Your task to perform on an android device: turn on data saver in the chrome app Image 0: 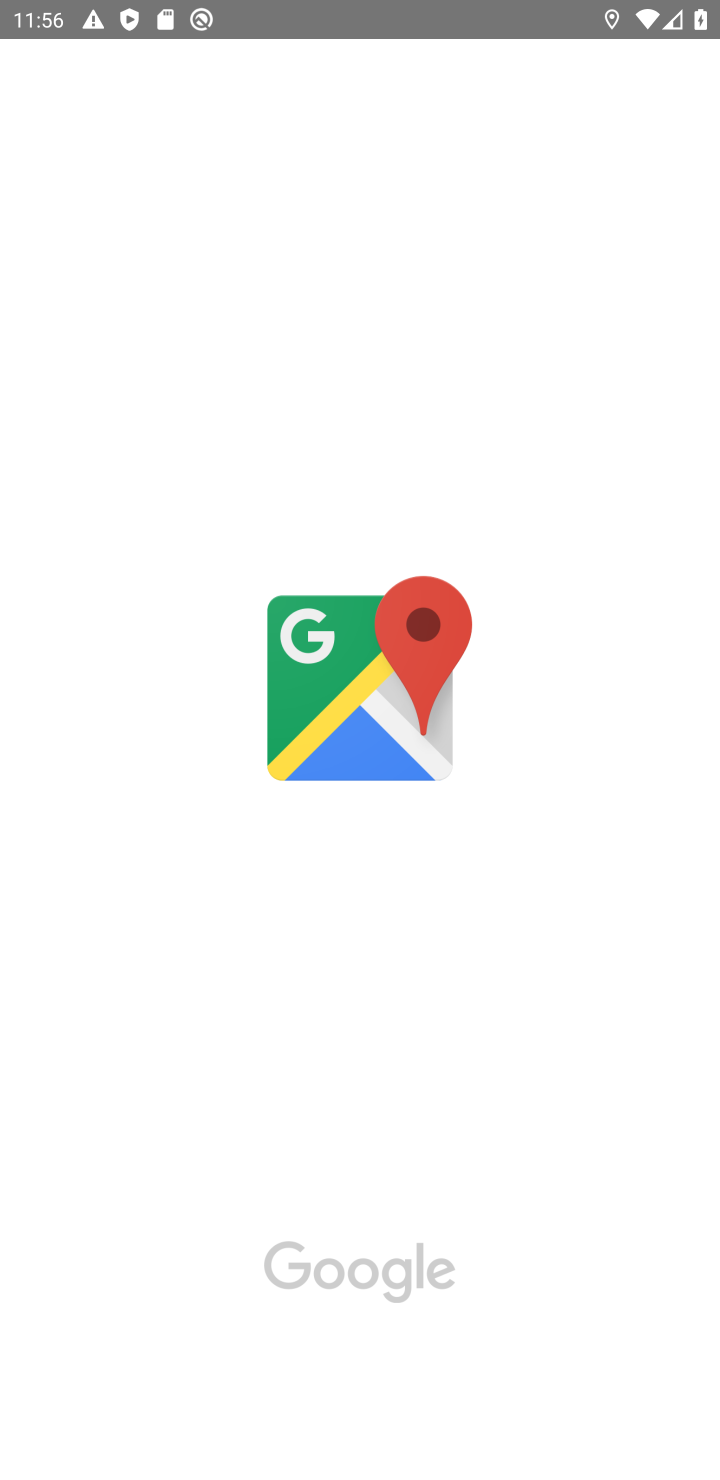
Step 0: press home button
Your task to perform on an android device: turn on data saver in the chrome app Image 1: 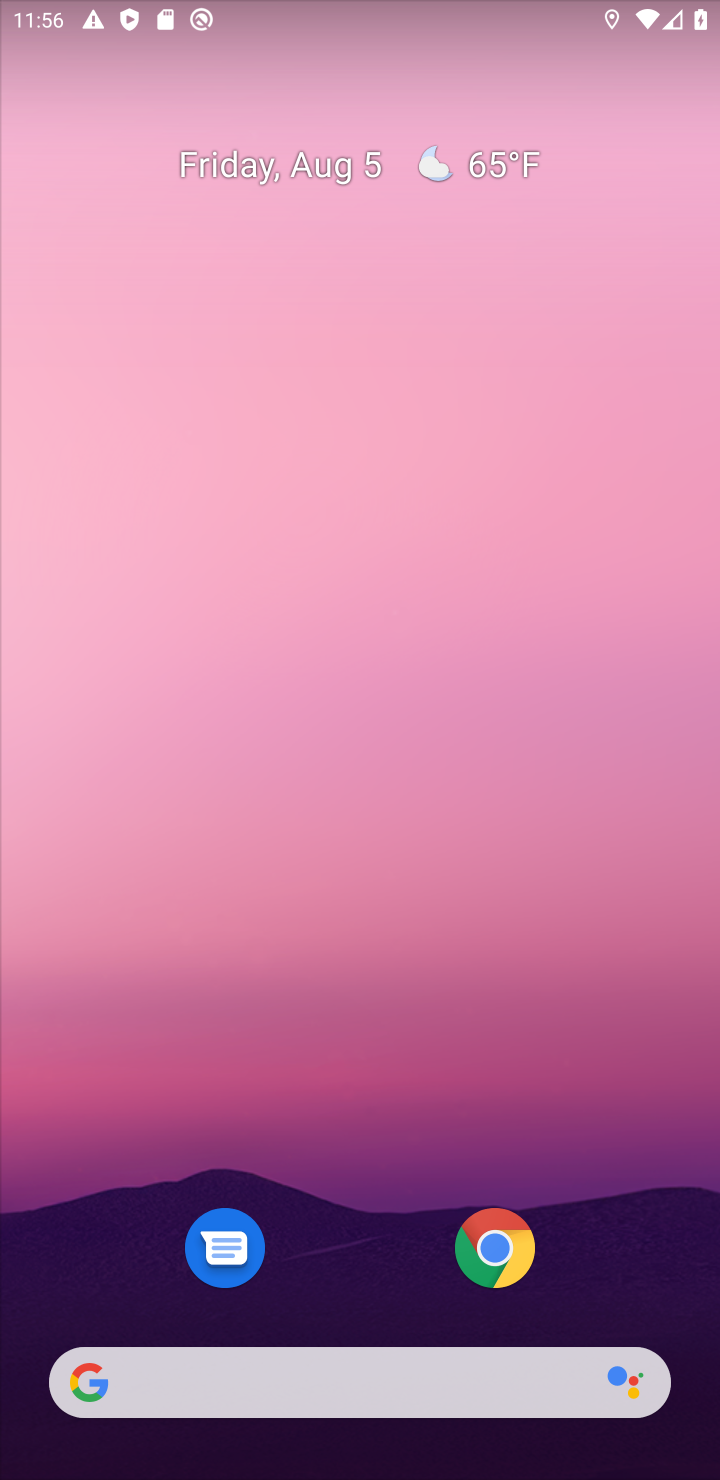
Step 1: drag from (361, 1309) to (396, 150)
Your task to perform on an android device: turn on data saver in the chrome app Image 2: 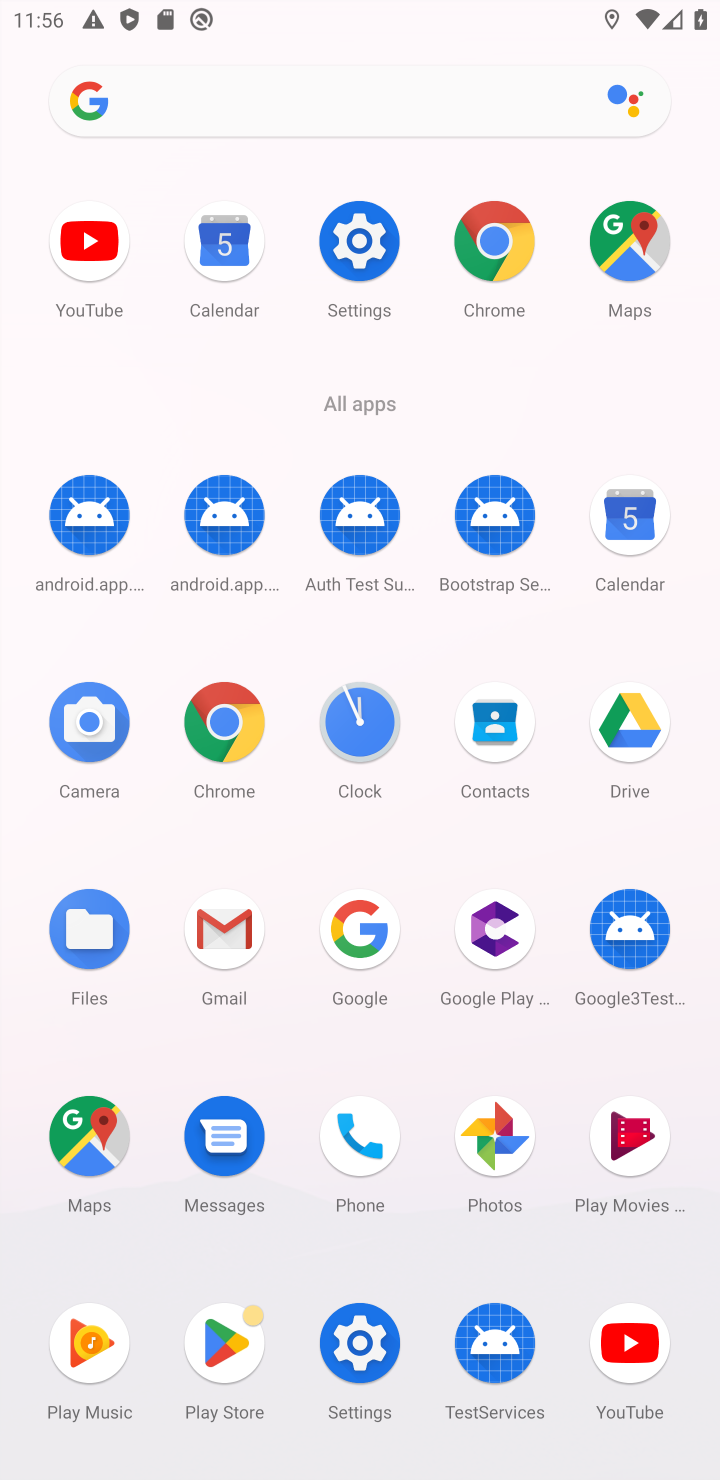
Step 2: click (490, 223)
Your task to perform on an android device: turn on data saver in the chrome app Image 3: 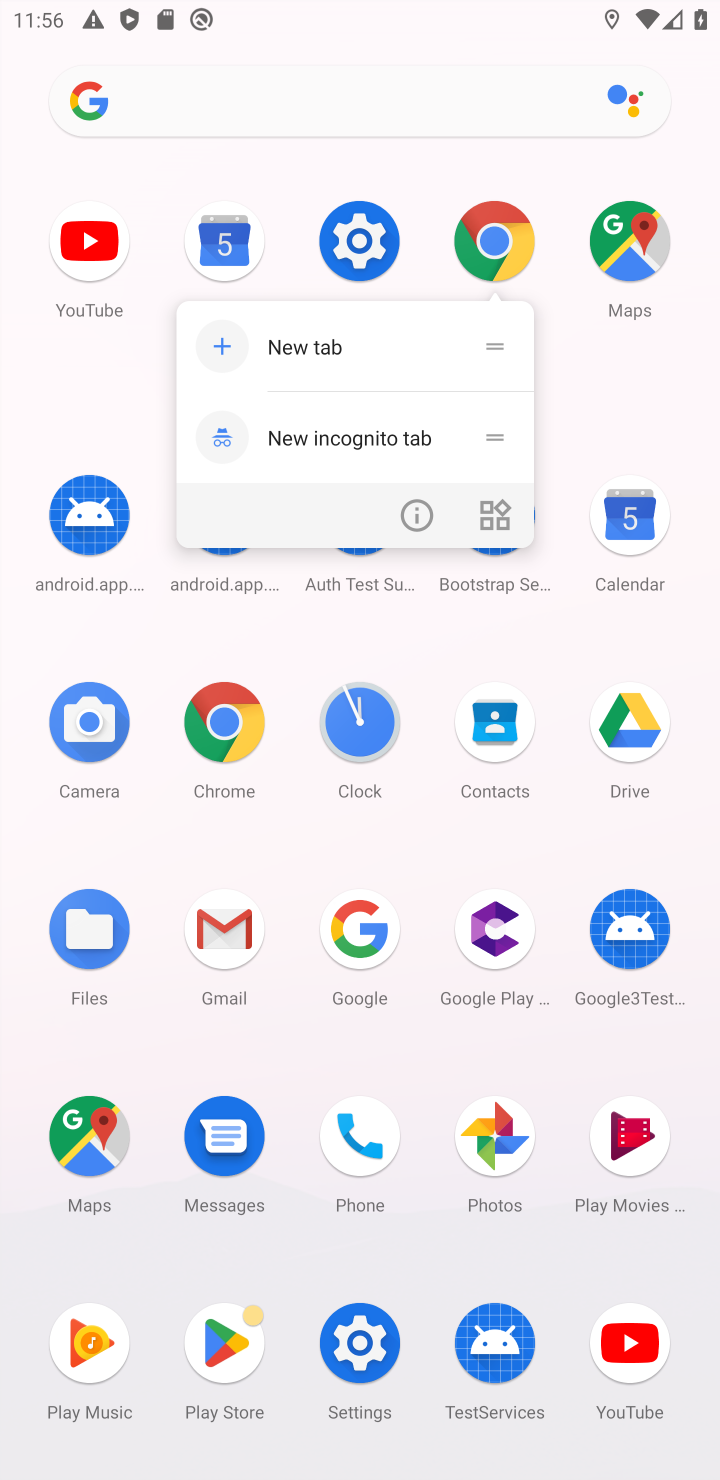
Step 3: click (495, 238)
Your task to perform on an android device: turn on data saver in the chrome app Image 4: 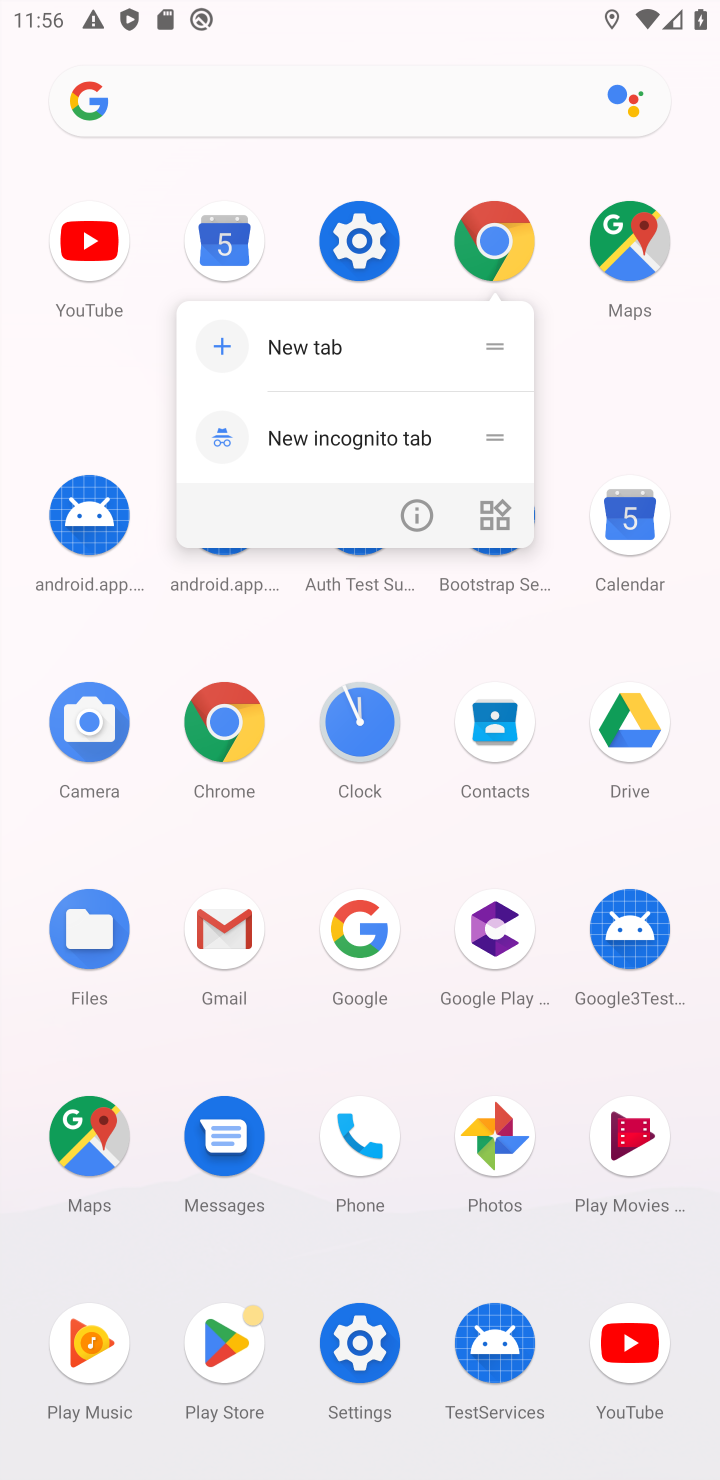
Step 4: click (496, 233)
Your task to perform on an android device: turn on data saver in the chrome app Image 5: 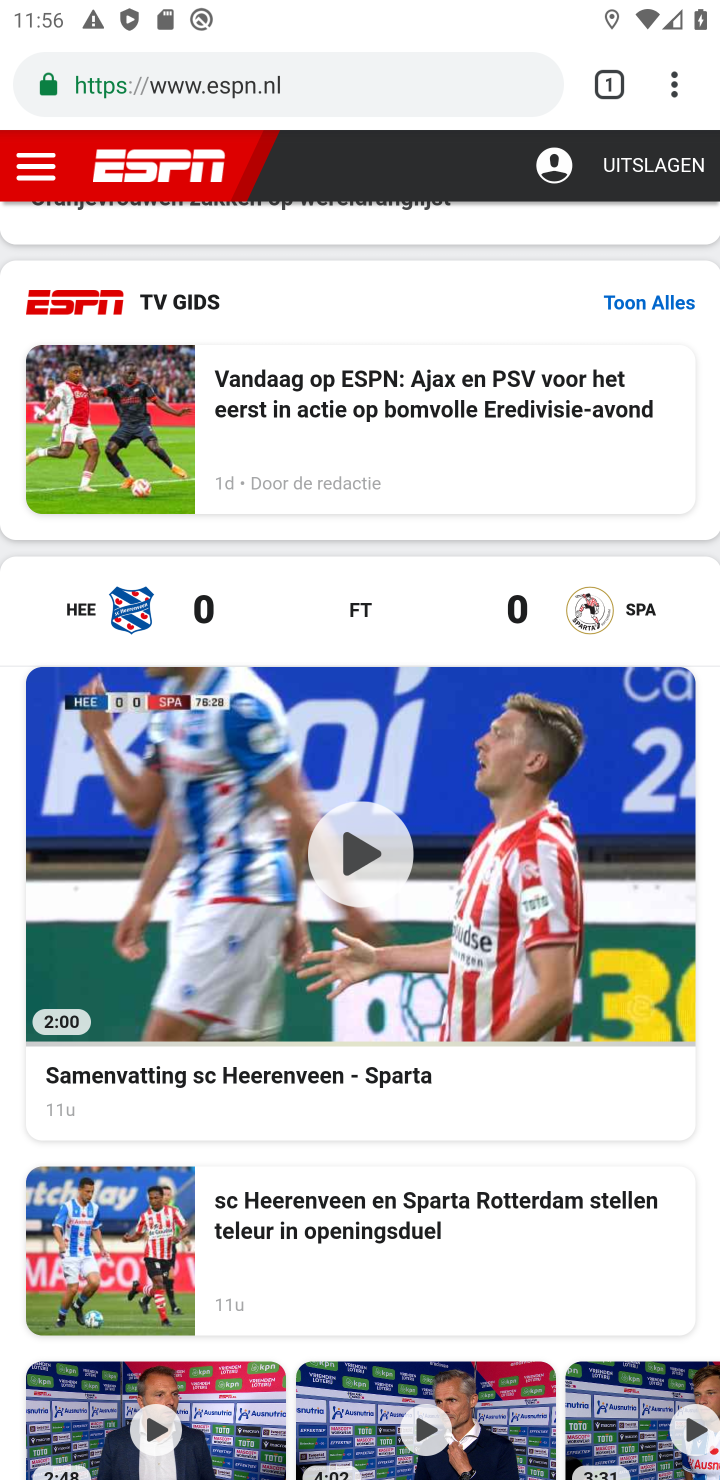
Step 5: click (676, 79)
Your task to perform on an android device: turn on data saver in the chrome app Image 6: 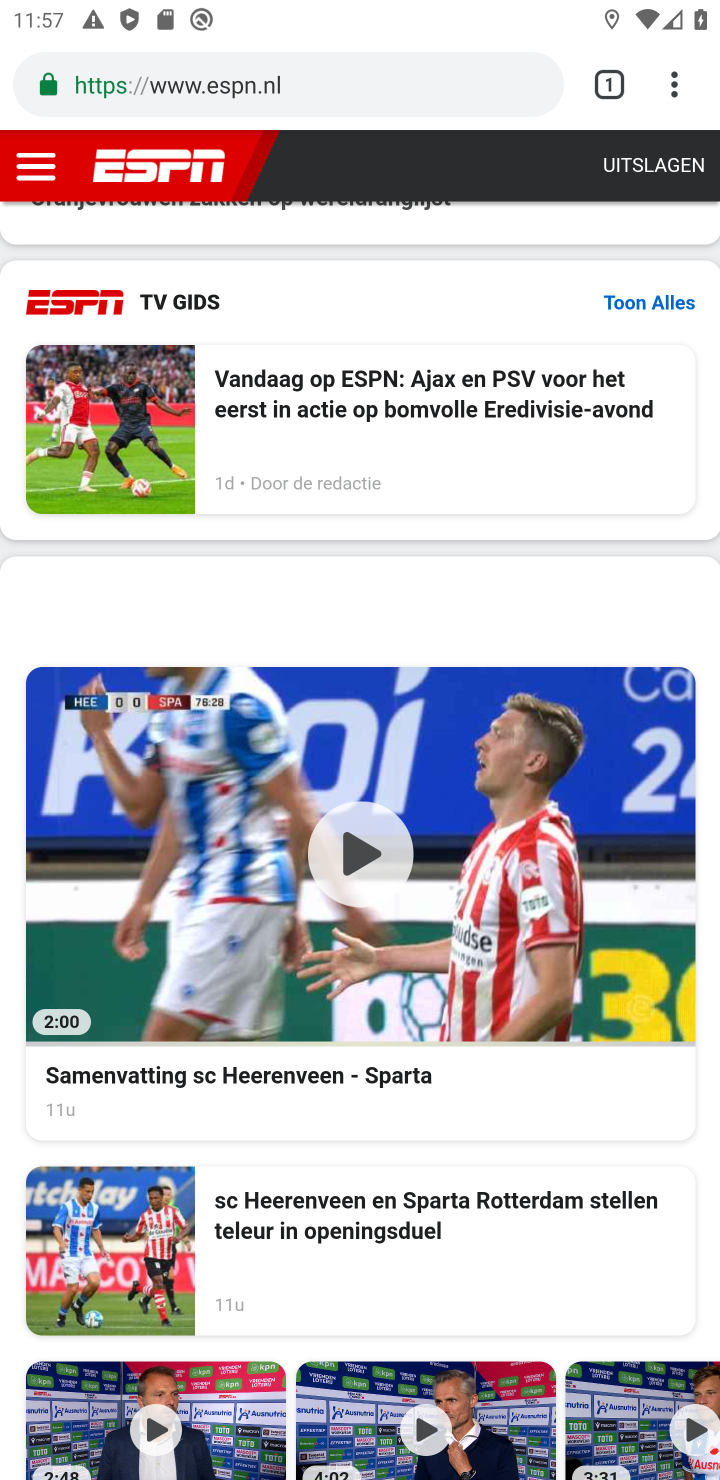
Step 6: click (676, 76)
Your task to perform on an android device: turn on data saver in the chrome app Image 7: 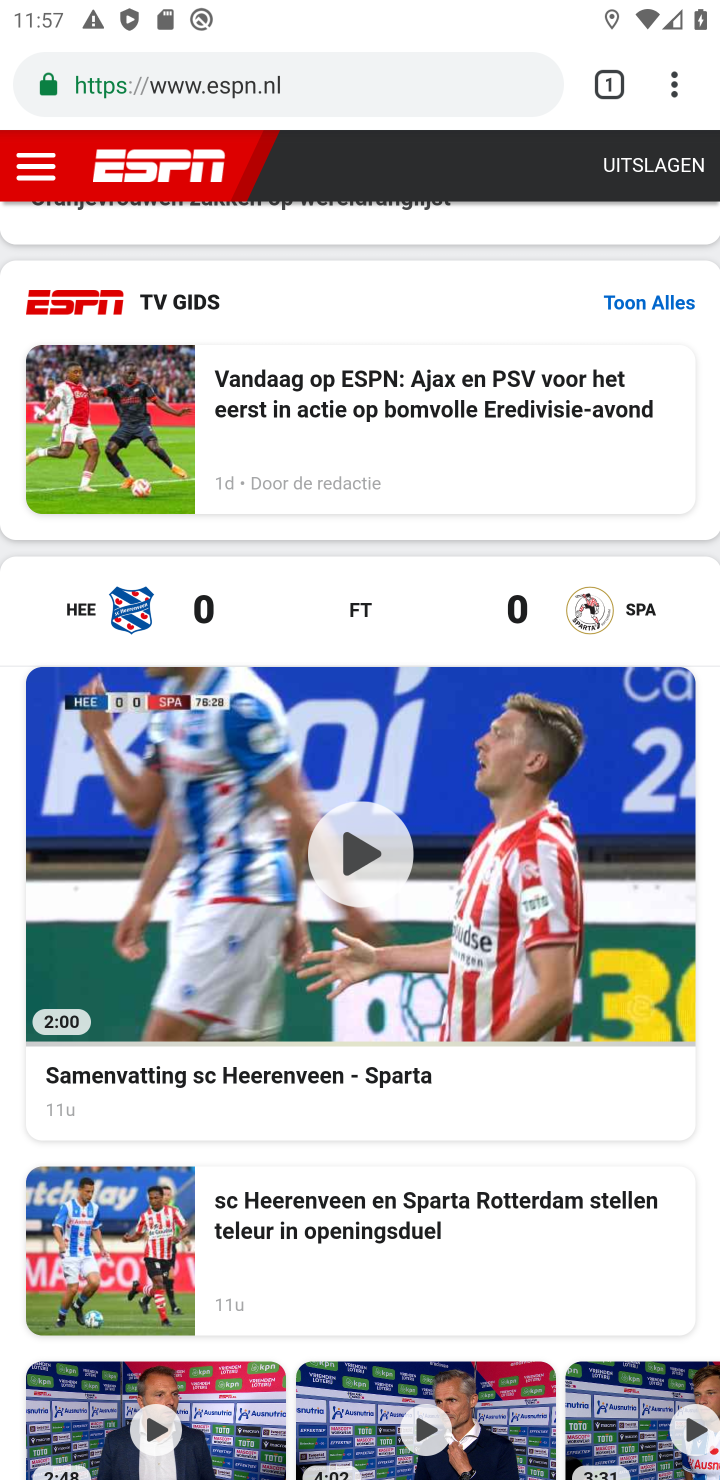
Step 7: click (678, 75)
Your task to perform on an android device: turn on data saver in the chrome app Image 8: 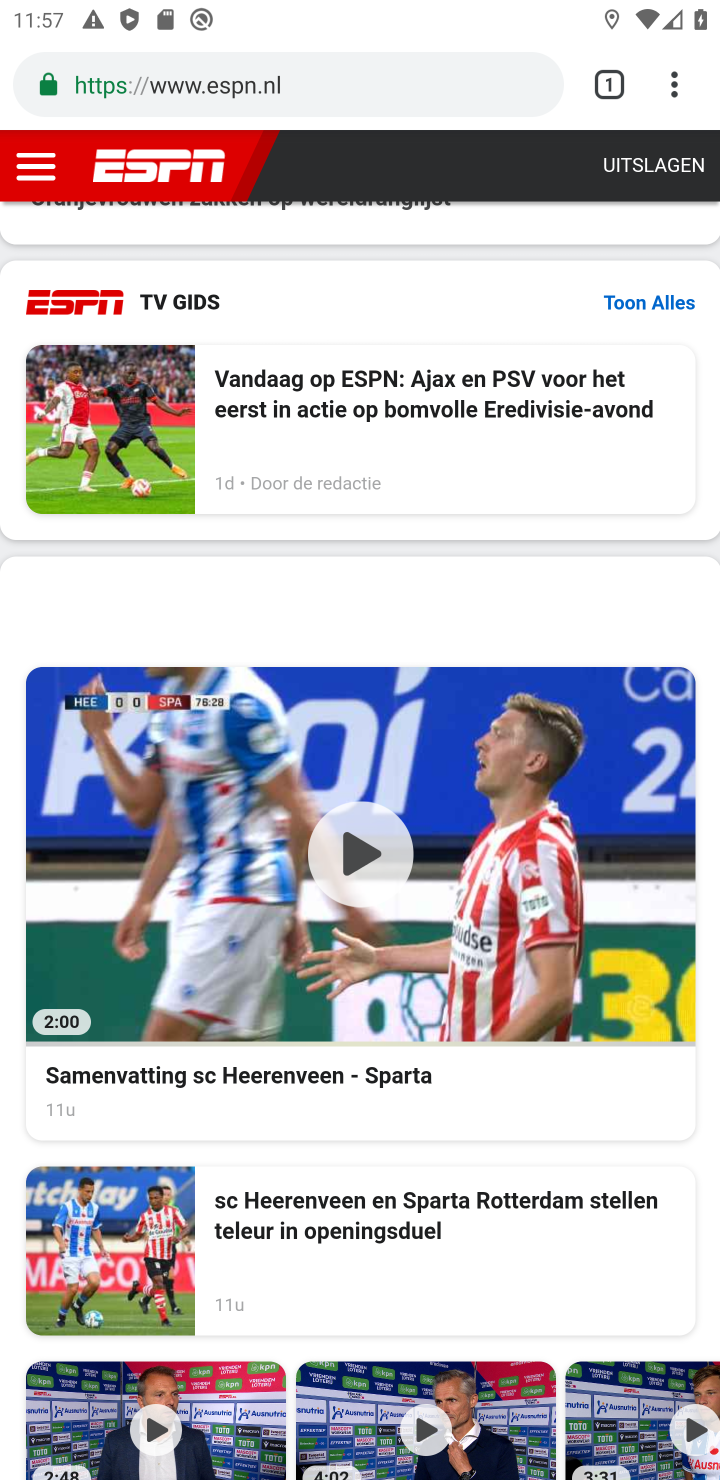
Step 8: click (680, 94)
Your task to perform on an android device: turn on data saver in the chrome app Image 9: 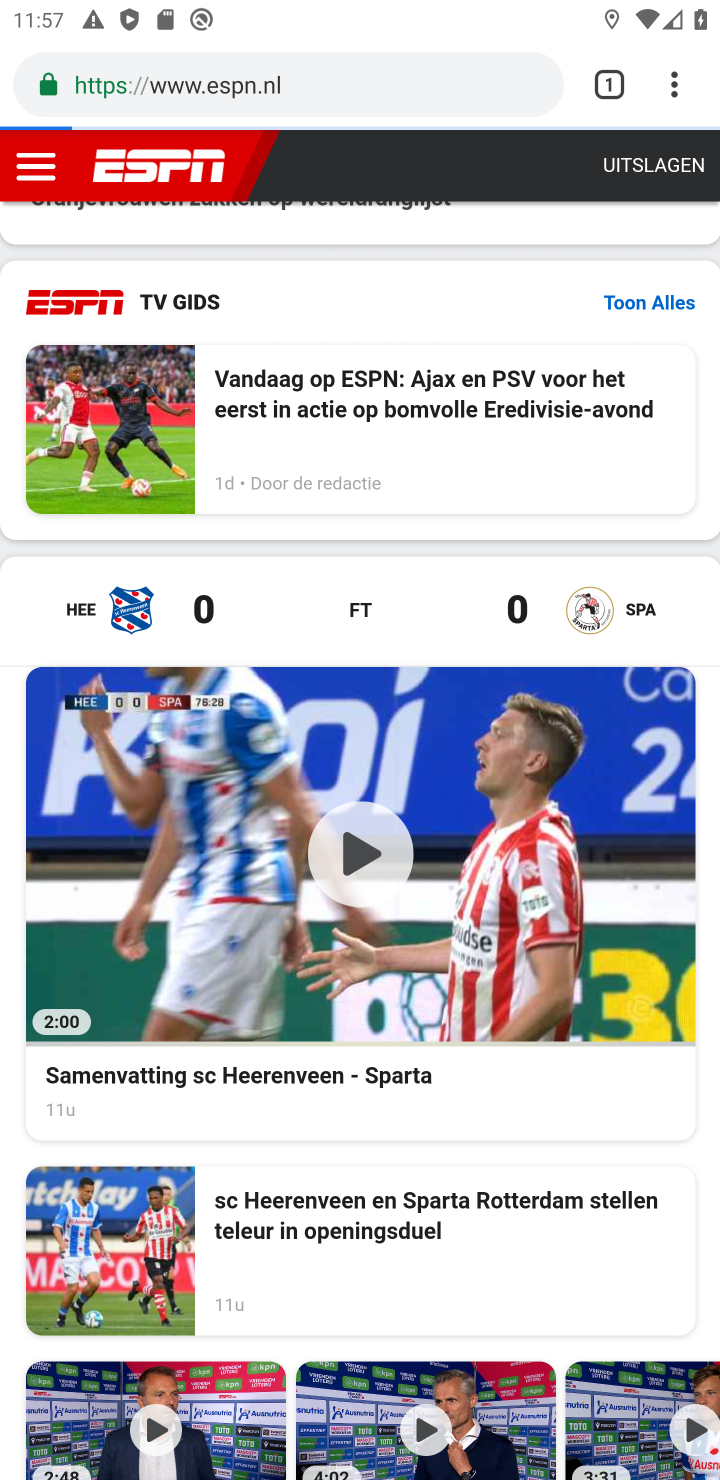
Step 9: click (664, 85)
Your task to perform on an android device: turn on data saver in the chrome app Image 10: 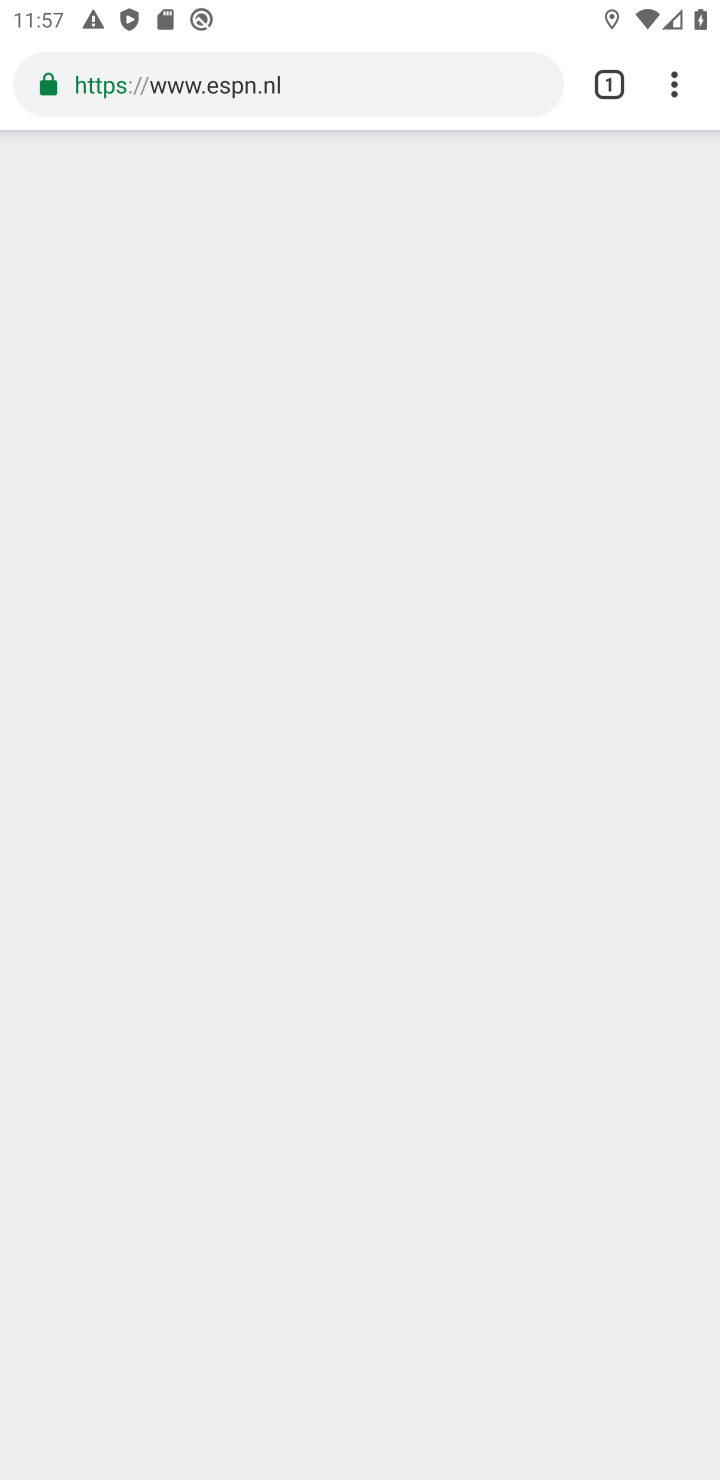
Step 10: click (665, 91)
Your task to perform on an android device: turn on data saver in the chrome app Image 11: 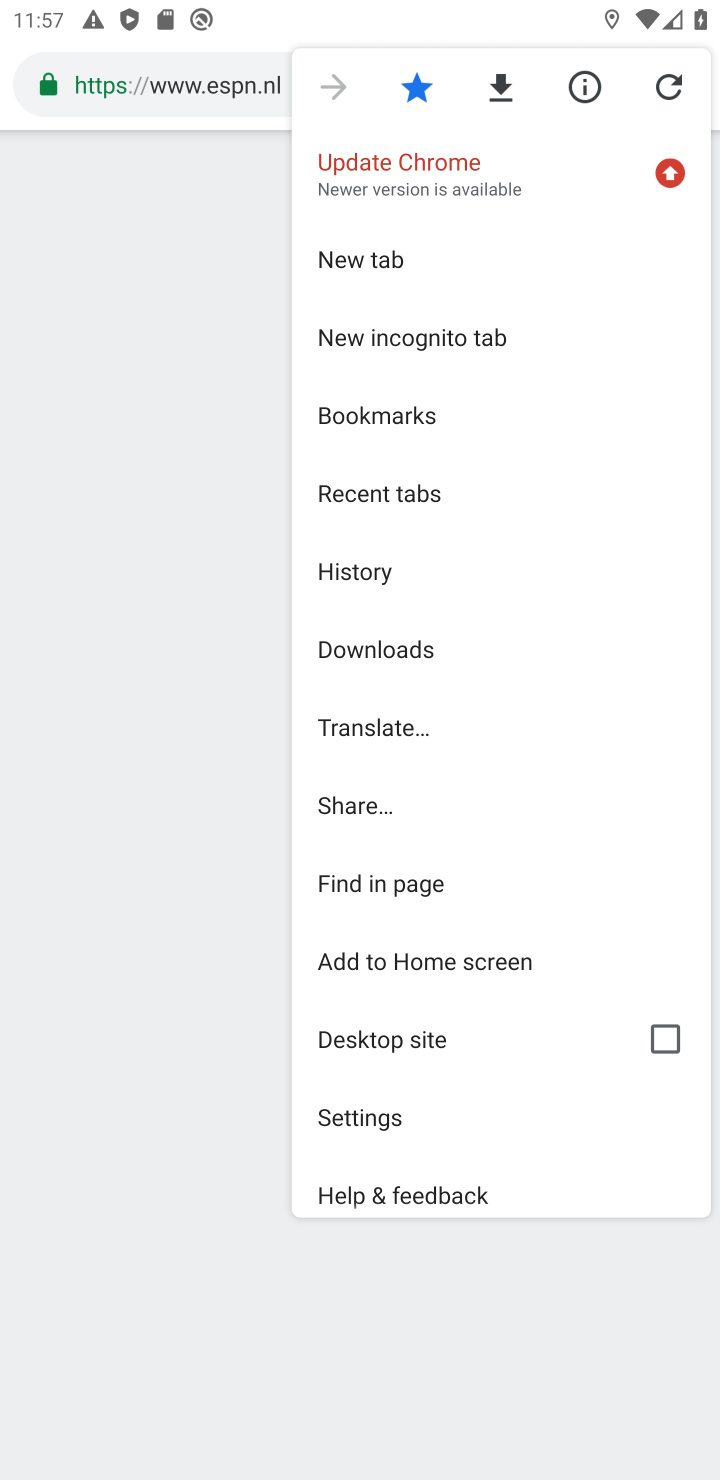
Step 11: click (413, 1114)
Your task to perform on an android device: turn on data saver in the chrome app Image 12: 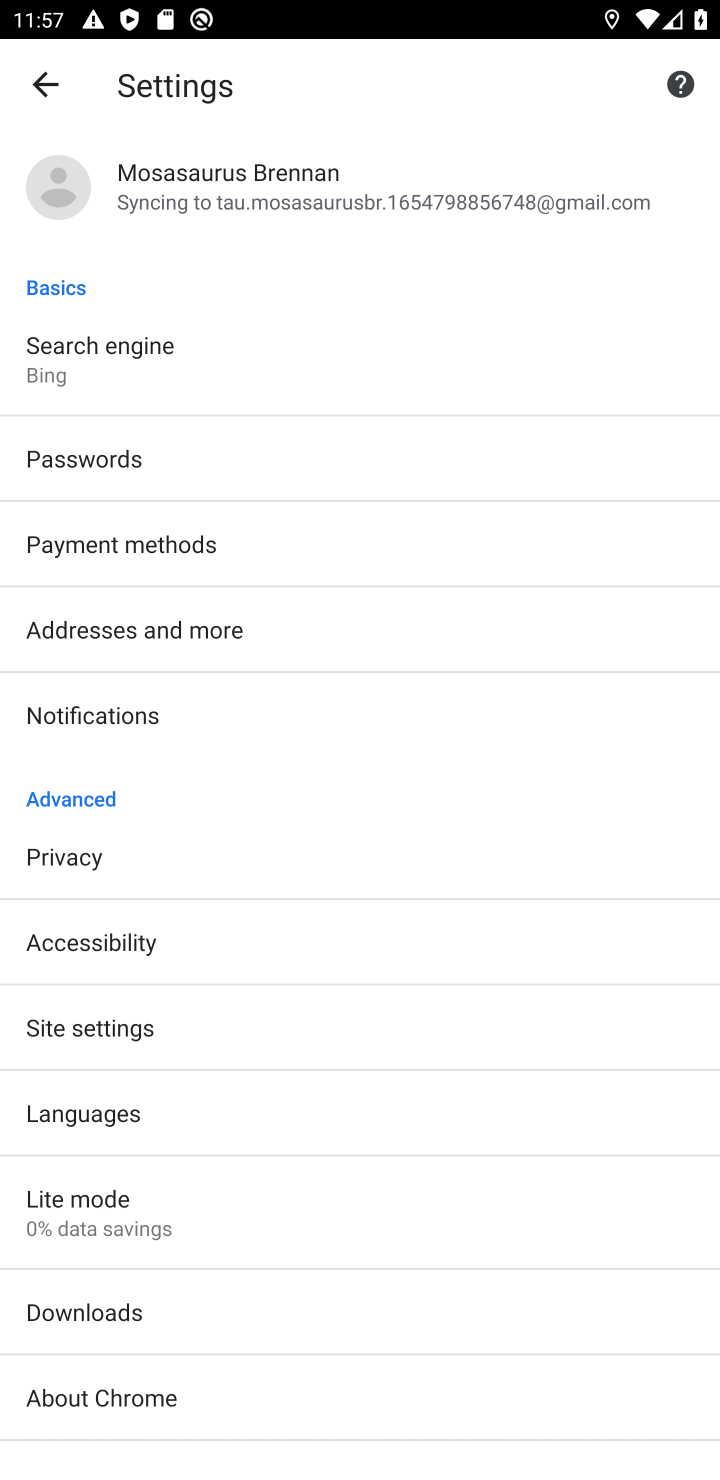
Step 12: click (201, 1216)
Your task to perform on an android device: turn on data saver in the chrome app Image 13: 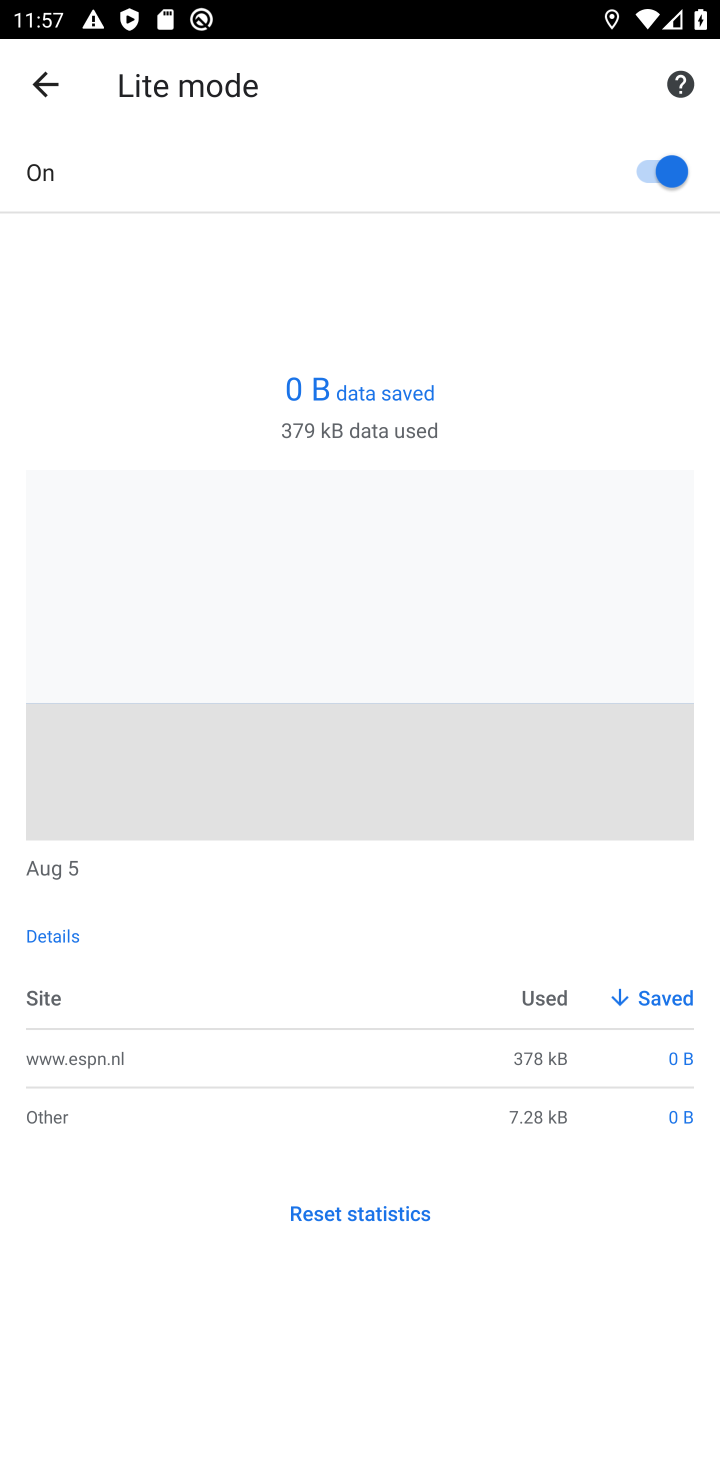
Step 13: task complete